Your task to perform on an android device: Clear the cart on costco.com. Search for macbook pro 13 inch on costco.com, select the first entry, and add it to the cart. Image 0: 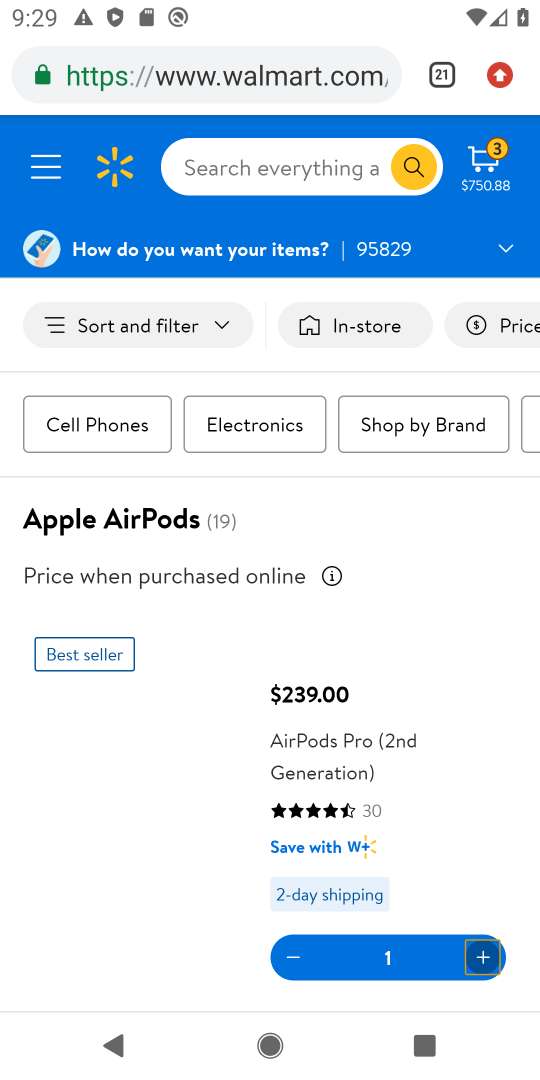
Step 0: press home button
Your task to perform on an android device: Clear the cart on costco.com. Search for macbook pro 13 inch on costco.com, select the first entry, and add it to the cart. Image 1: 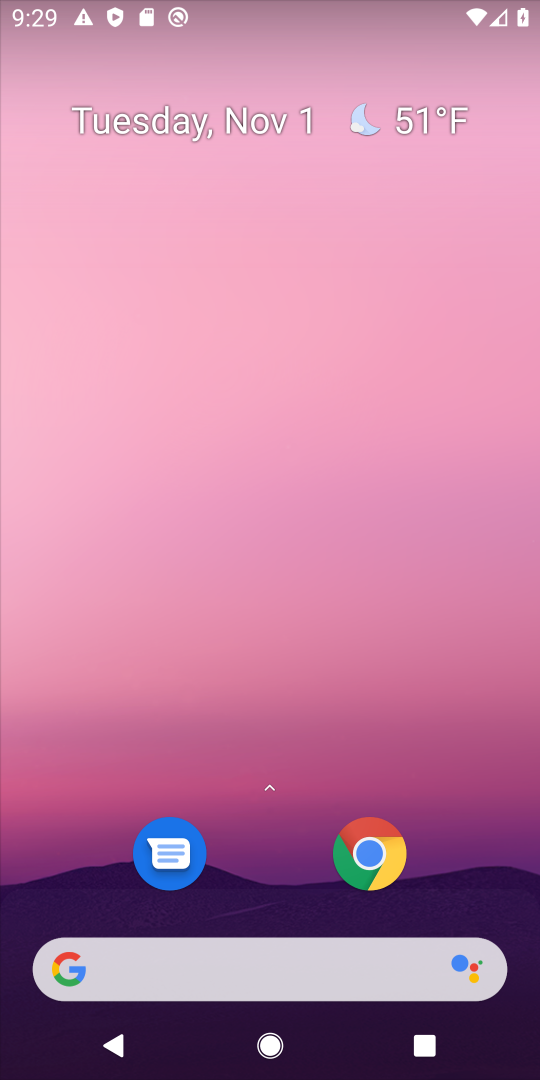
Step 1: click (275, 980)
Your task to perform on an android device: Clear the cart on costco.com. Search for macbook pro 13 inch on costco.com, select the first entry, and add it to the cart. Image 2: 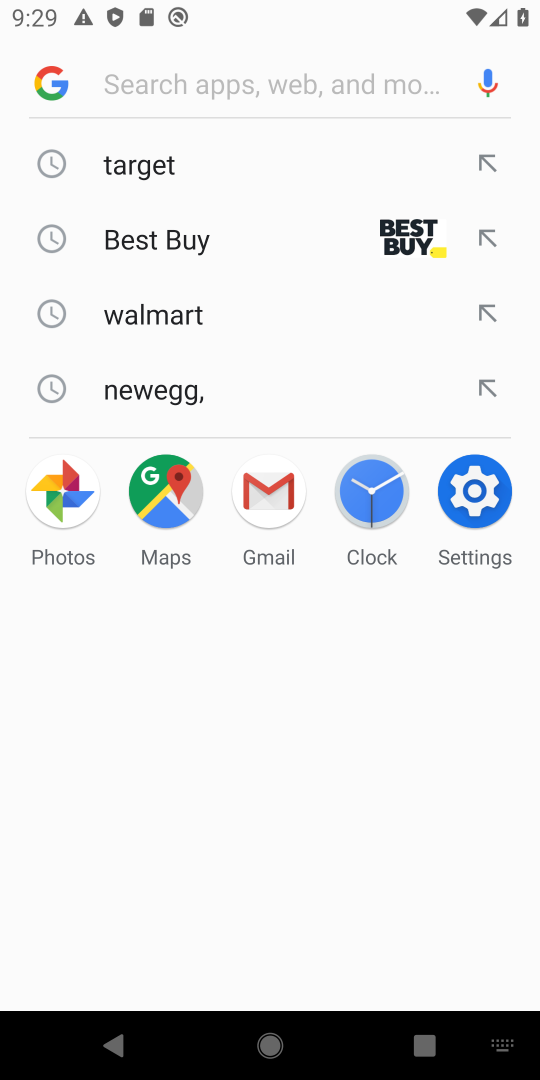
Step 2: type "macbook pro 13"
Your task to perform on an android device: Clear the cart on costco.com. Search for macbook pro 13 inch on costco.com, select the first entry, and add it to the cart. Image 3: 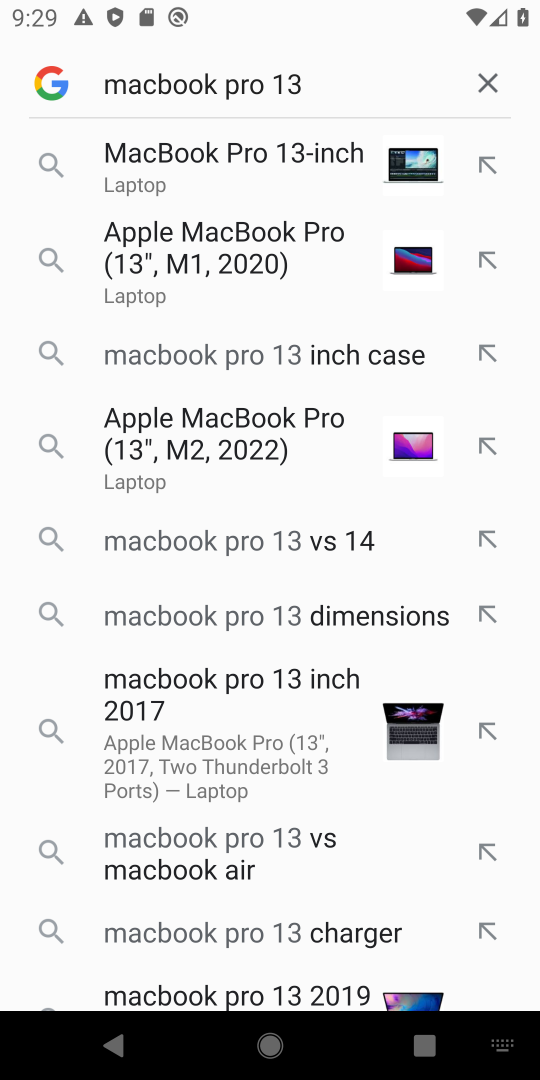
Step 3: click (270, 183)
Your task to perform on an android device: Clear the cart on costco.com. Search for macbook pro 13 inch on costco.com, select the first entry, and add it to the cart. Image 4: 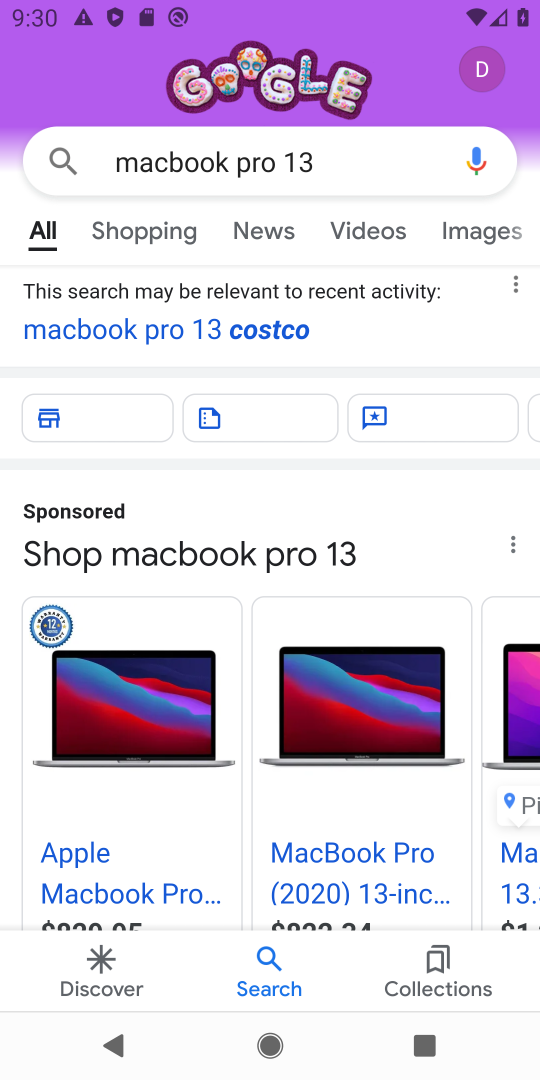
Step 4: click (122, 836)
Your task to perform on an android device: Clear the cart on costco.com. Search for macbook pro 13 inch on costco.com, select the first entry, and add it to the cart. Image 5: 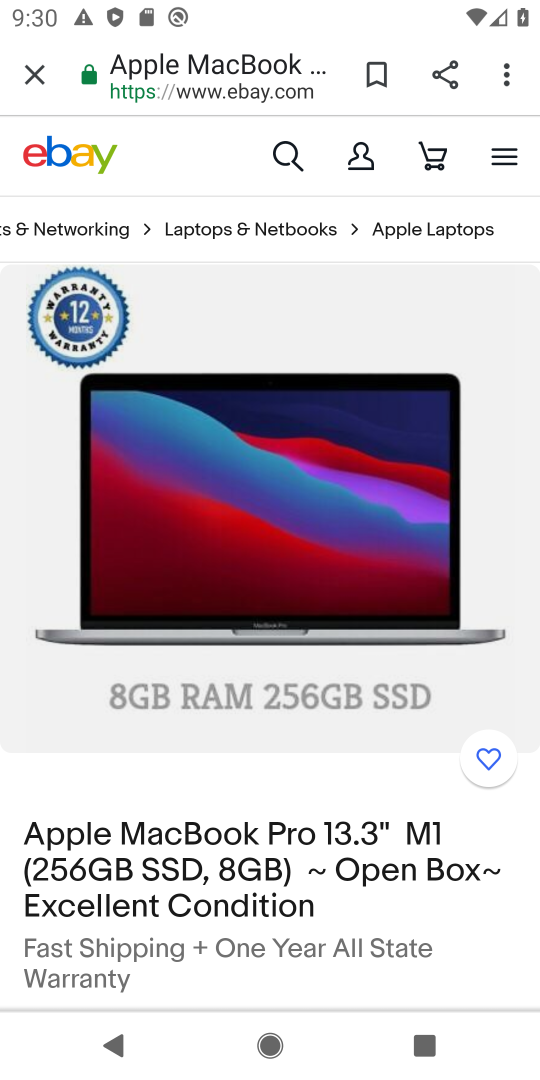
Step 5: drag from (240, 802) to (252, 428)
Your task to perform on an android device: Clear the cart on costco.com. Search for macbook pro 13 inch on costco.com, select the first entry, and add it to the cart. Image 6: 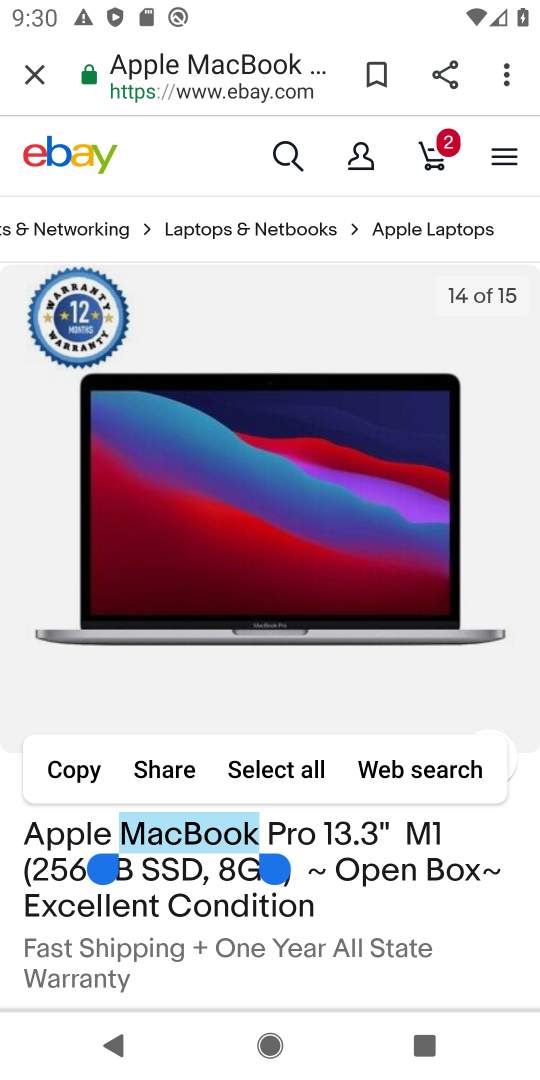
Step 6: click (258, 721)
Your task to perform on an android device: Clear the cart on costco.com. Search for macbook pro 13 inch on costco.com, select the first entry, and add it to the cart. Image 7: 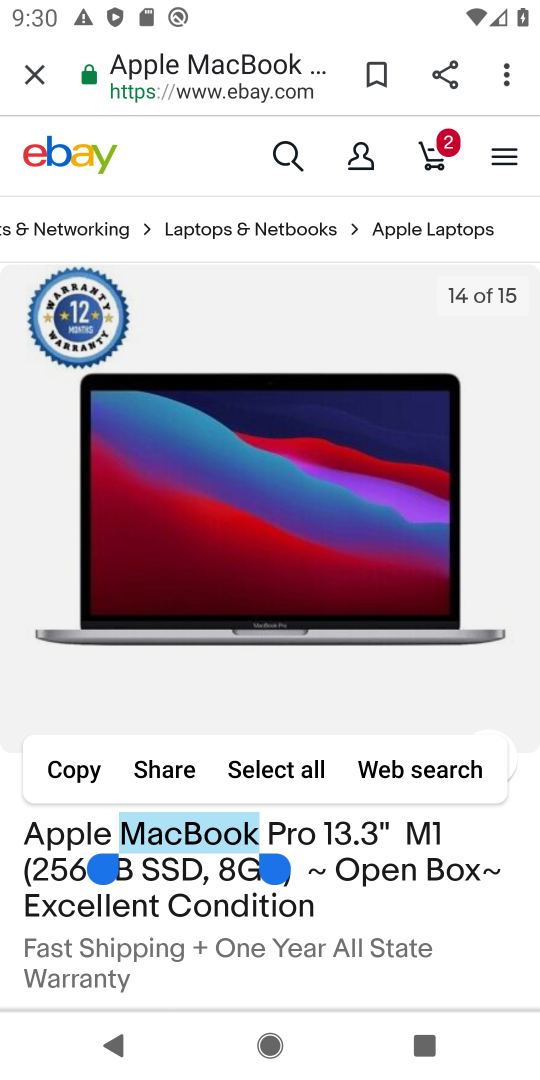
Step 7: task complete